Your task to perform on an android device: find which apps use the phone's location Image 0: 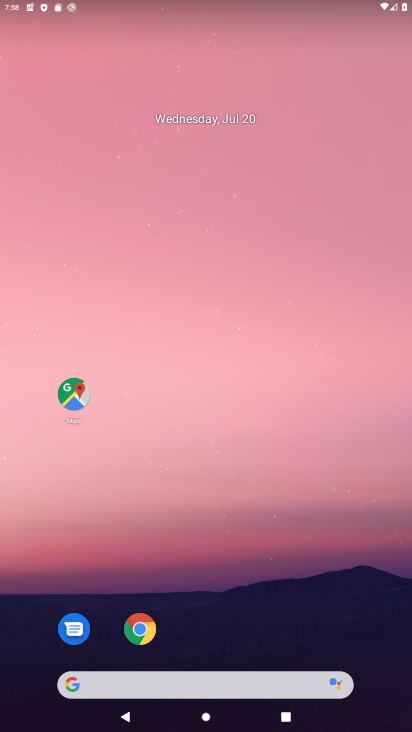
Step 0: drag from (195, 498) to (221, 177)
Your task to perform on an android device: find which apps use the phone's location Image 1: 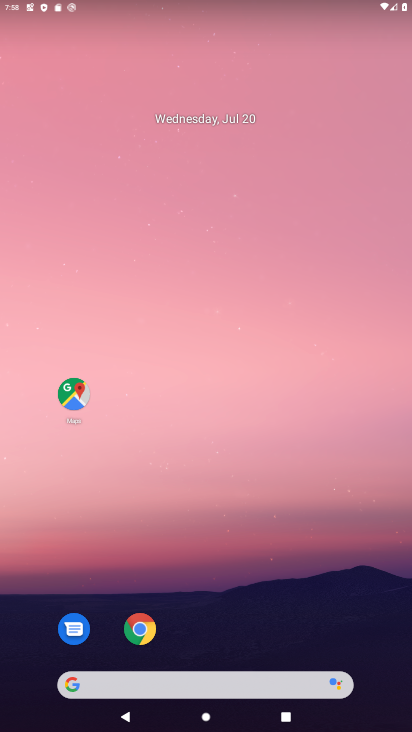
Step 1: drag from (201, 570) to (191, 159)
Your task to perform on an android device: find which apps use the phone's location Image 2: 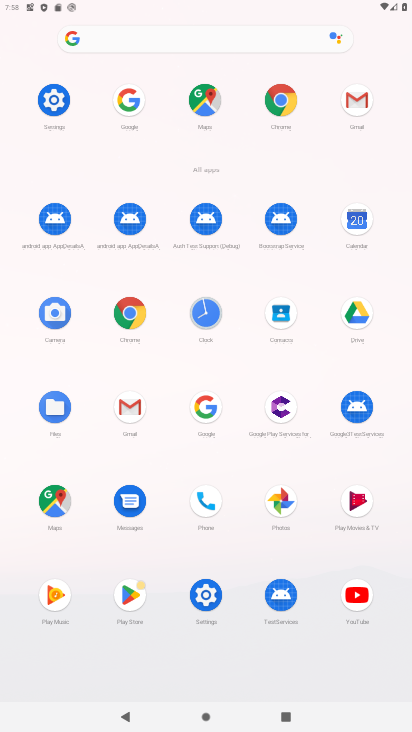
Step 2: click (53, 100)
Your task to perform on an android device: find which apps use the phone's location Image 3: 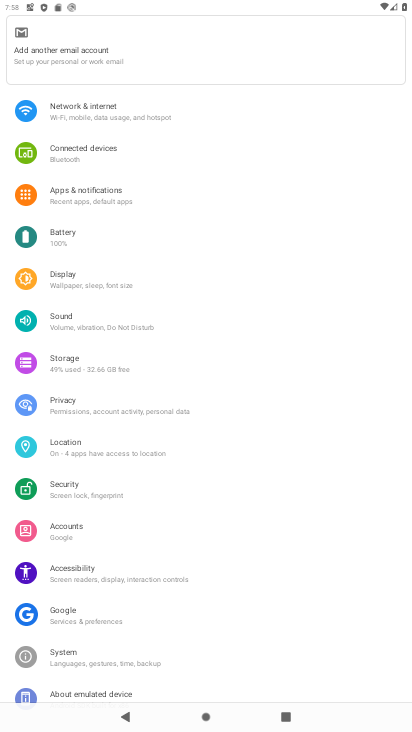
Step 3: click (54, 454)
Your task to perform on an android device: find which apps use the phone's location Image 4: 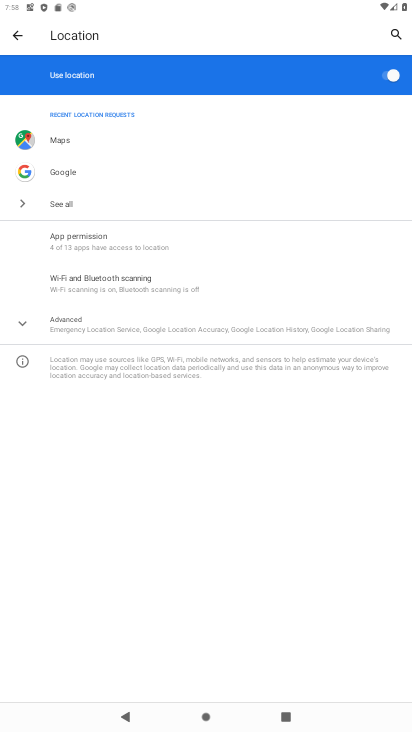
Step 4: click (98, 240)
Your task to perform on an android device: find which apps use the phone's location Image 5: 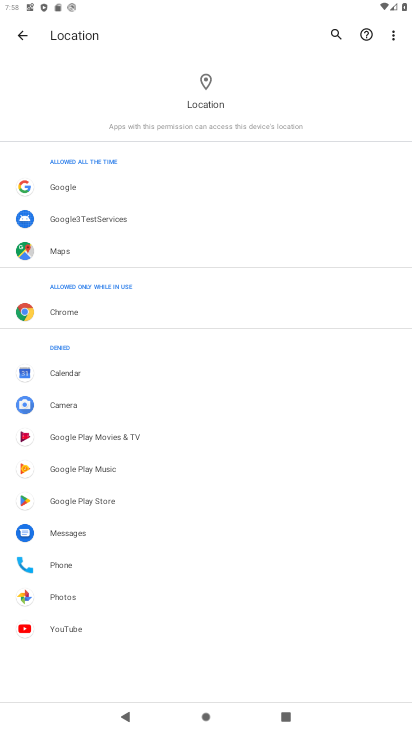
Step 5: task complete